Your task to perform on an android device: Go to display settings Image 0: 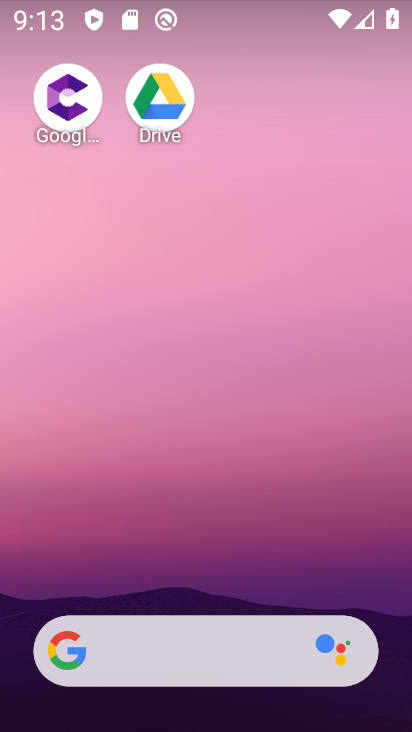
Step 0: drag from (199, 609) to (262, 0)
Your task to perform on an android device: Go to display settings Image 1: 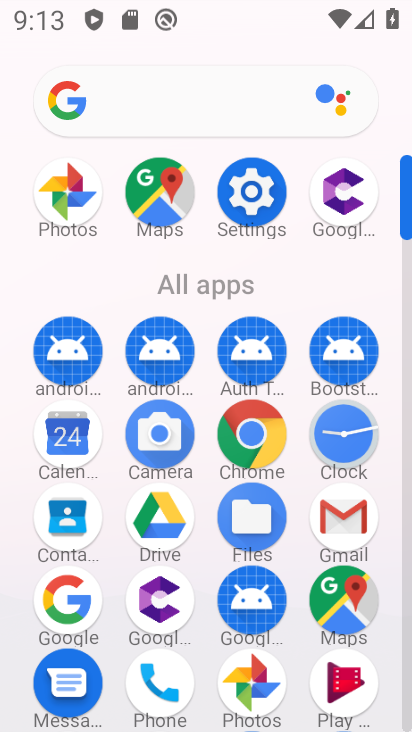
Step 1: click (240, 217)
Your task to perform on an android device: Go to display settings Image 2: 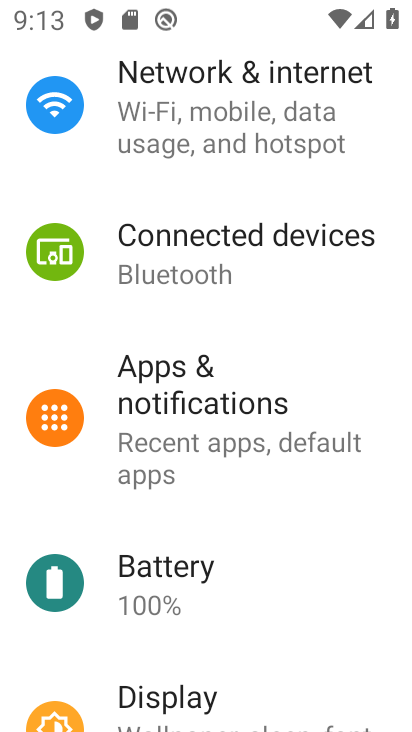
Step 2: click (159, 718)
Your task to perform on an android device: Go to display settings Image 3: 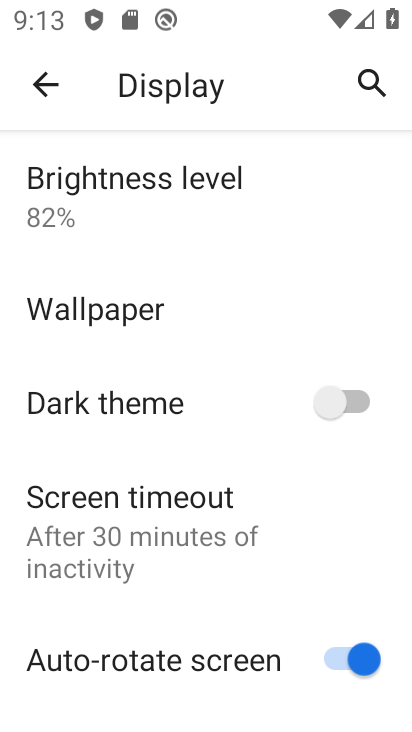
Step 3: task complete